Your task to perform on an android device: manage bookmarks in the chrome app Image 0: 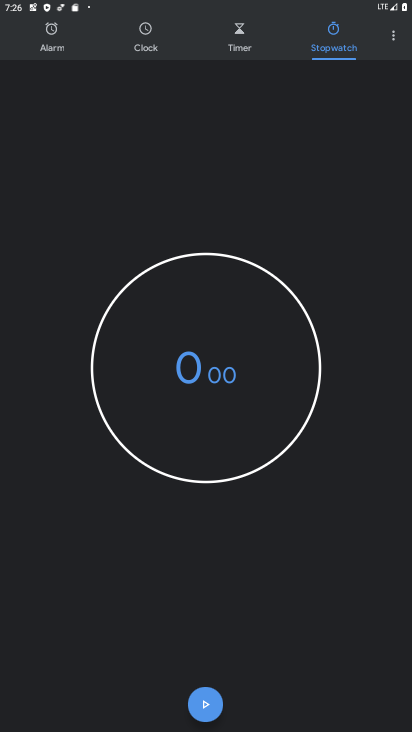
Step 0: press home button
Your task to perform on an android device: manage bookmarks in the chrome app Image 1: 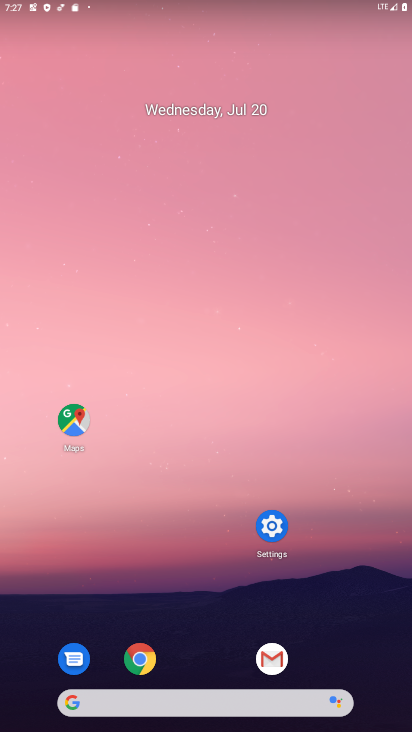
Step 1: click (150, 658)
Your task to perform on an android device: manage bookmarks in the chrome app Image 2: 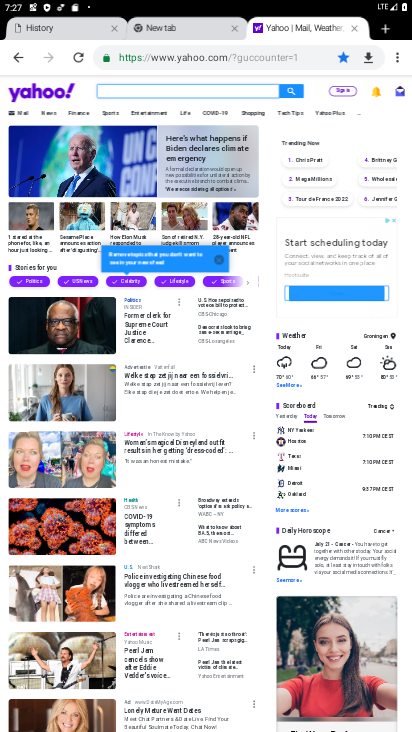
Step 2: click (398, 60)
Your task to perform on an android device: manage bookmarks in the chrome app Image 3: 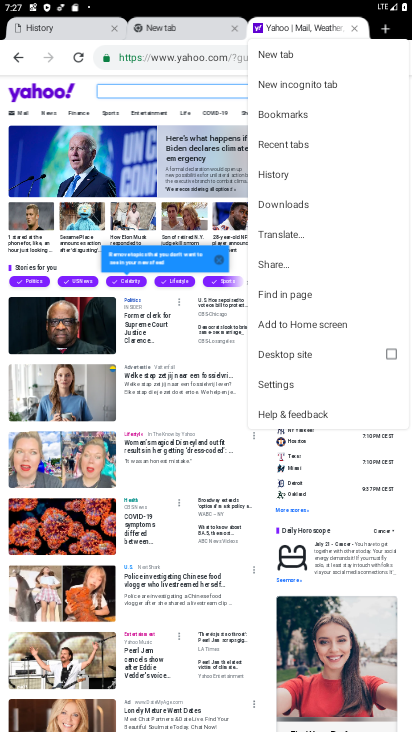
Step 3: click (291, 115)
Your task to perform on an android device: manage bookmarks in the chrome app Image 4: 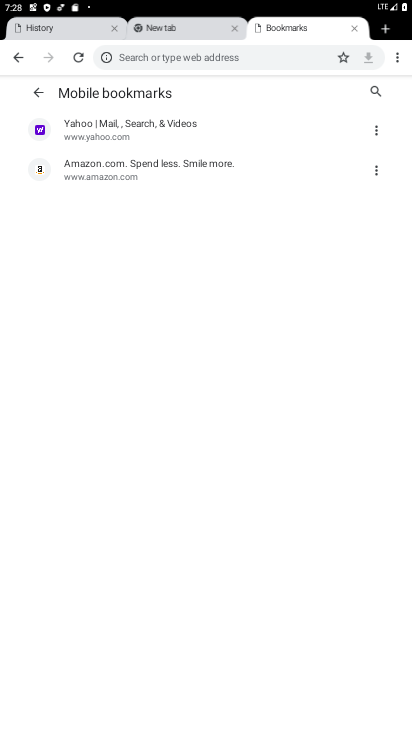
Step 4: task complete